Your task to perform on an android device: Open battery settings Image 0: 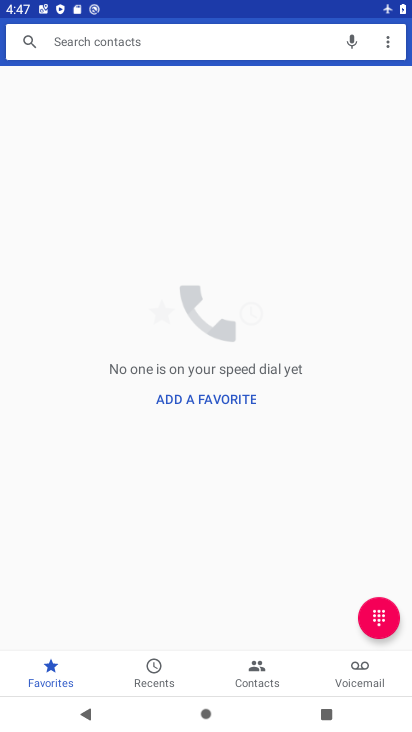
Step 0: press home button
Your task to perform on an android device: Open battery settings Image 1: 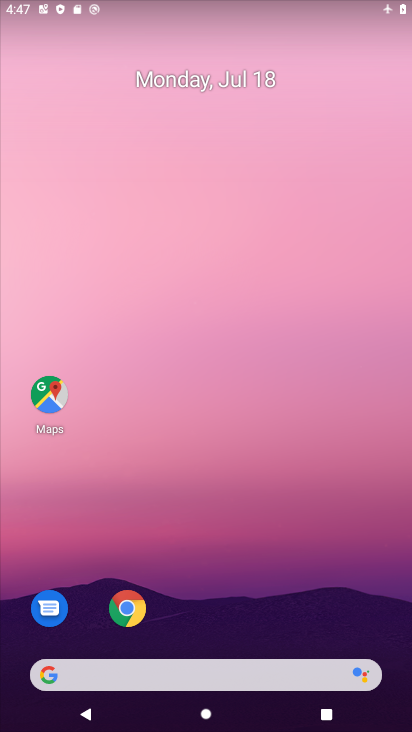
Step 1: drag from (270, 429) to (205, 0)
Your task to perform on an android device: Open battery settings Image 2: 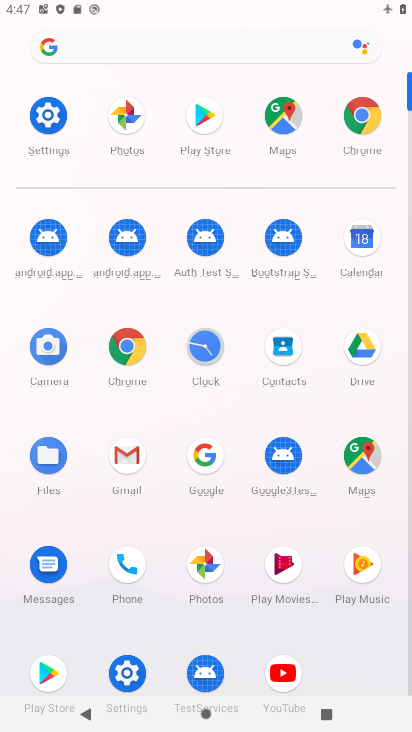
Step 2: click (48, 123)
Your task to perform on an android device: Open battery settings Image 3: 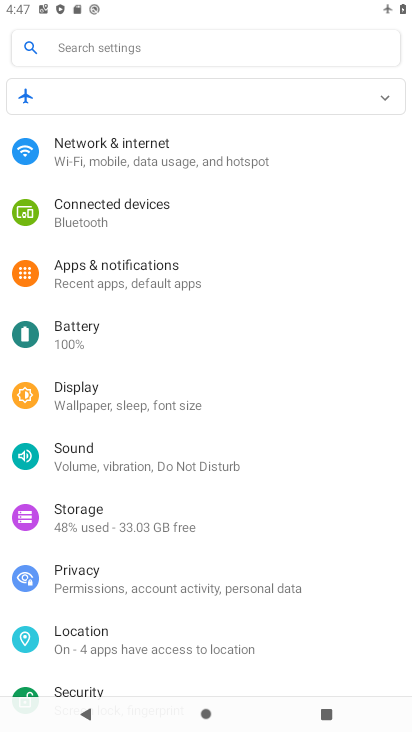
Step 3: drag from (322, 628) to (262, 472)
Your task to perform on an android device: Open battery settings Image 4: 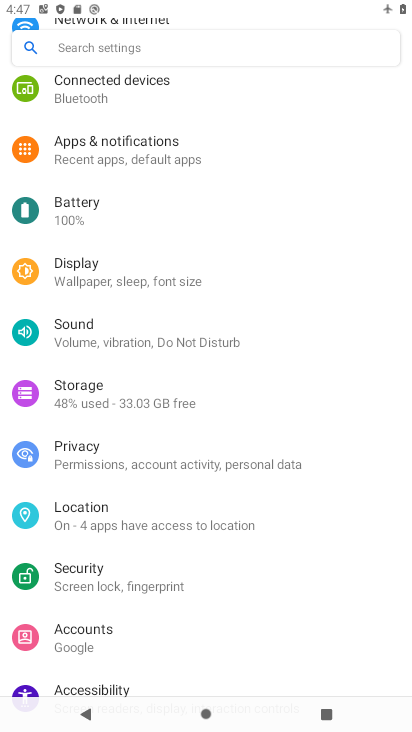
Step 4: click (62, 203)
Your task to perform on an android device: Open battery settings Image 5: 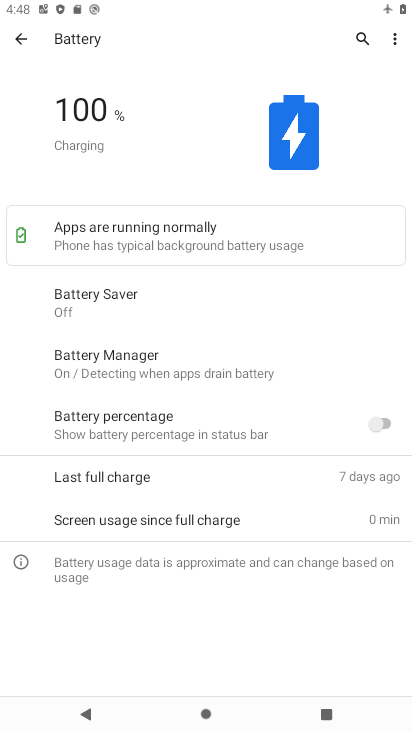
Step 5: task complete